Your task to perform on an android device: Open Yahoo.com Image 0: 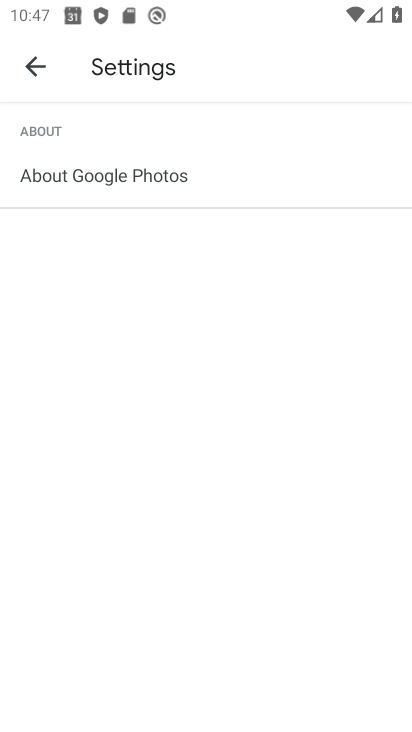
Step 0: press home button
Your task to perform on an android device: Open Yahoo.com Image 1: 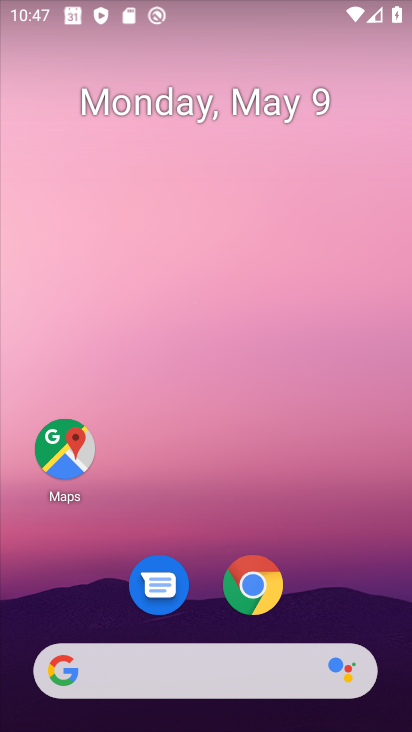
Step 1: click (193, 674)
Your task to perform on an android device: Open Yahoo.com Image 2: 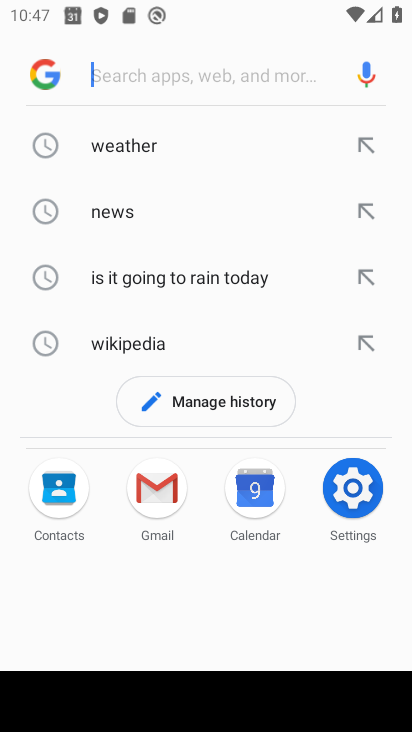
Step 2: type "yahoo.com"
Your task to perform on an android device: Open Yahoo.com Image 3: 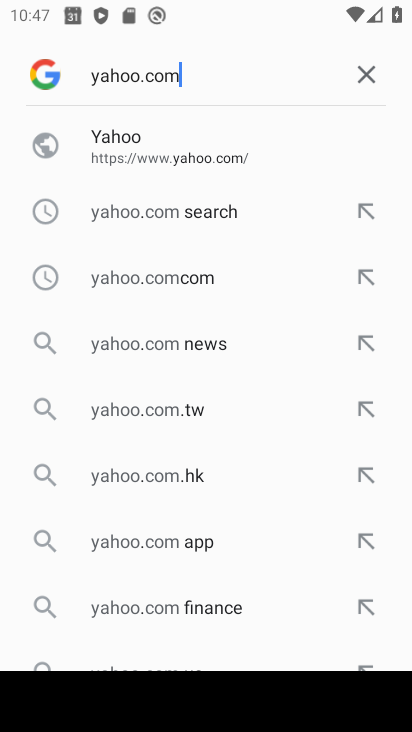
Step 3: click (118, 139)
Your task to perform on an android device: Open Yahoo.com Image 4: 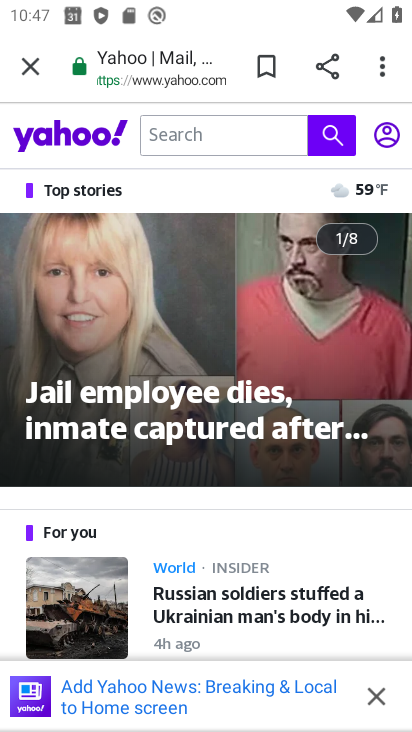
Step 4: task complete